Your task to perform on an android device: Open calendar and show me the fourth week of next month Image 0: 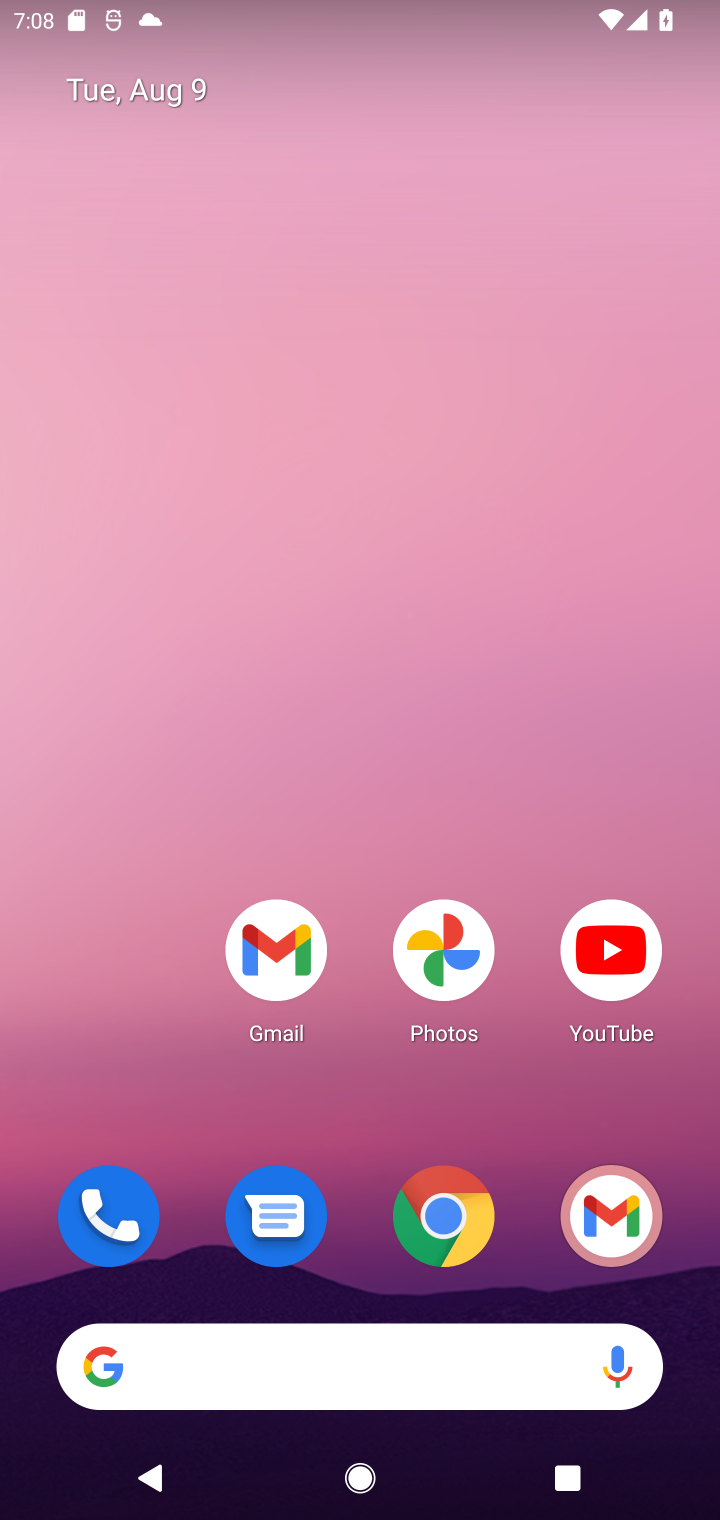
Step 0: drag from (378, 1106) to (276, 112)
Your task to perform on an android device: Open calendar and show me the fourth week of next month Image 1: 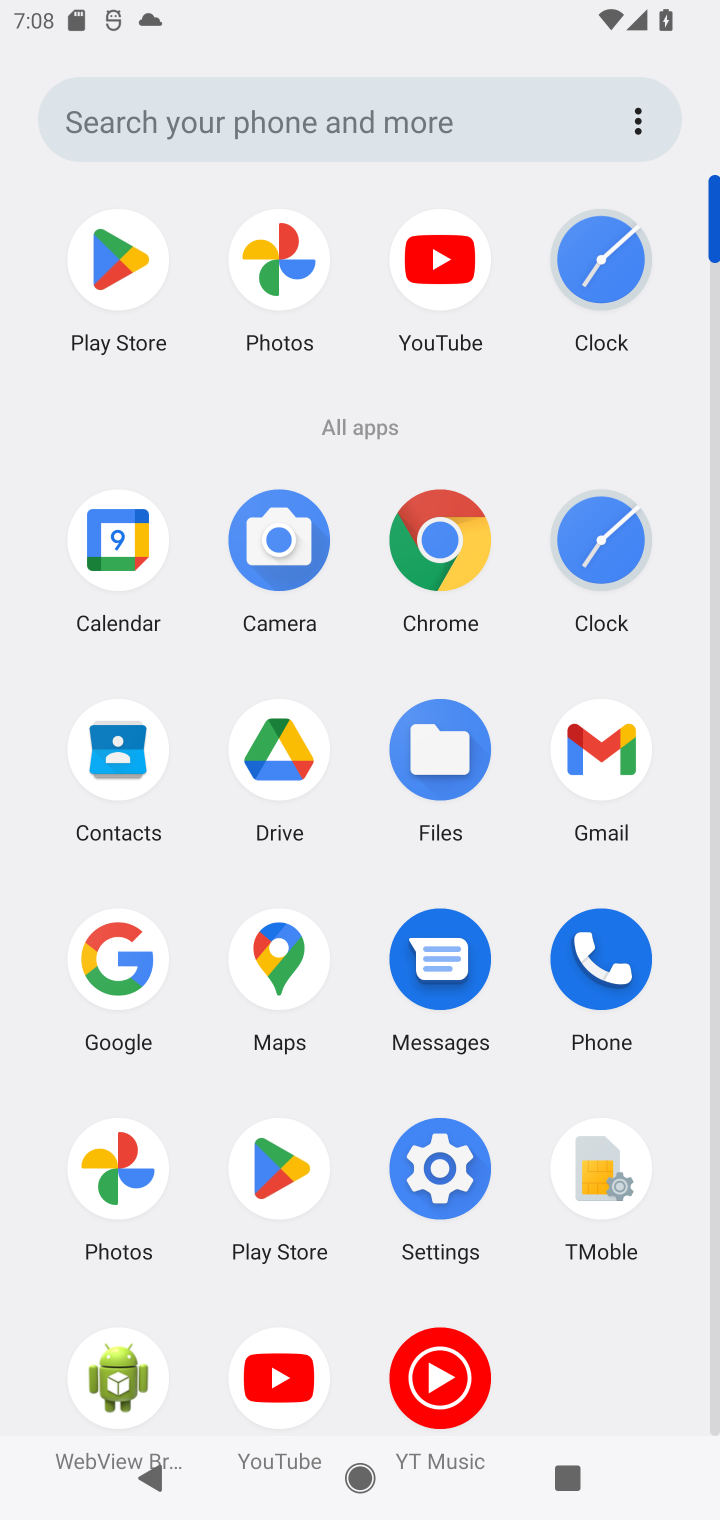
Step 1: click (111, 555)
Your task to perform on an android device: Open calendar and show me the fourth week of next month Image 2: 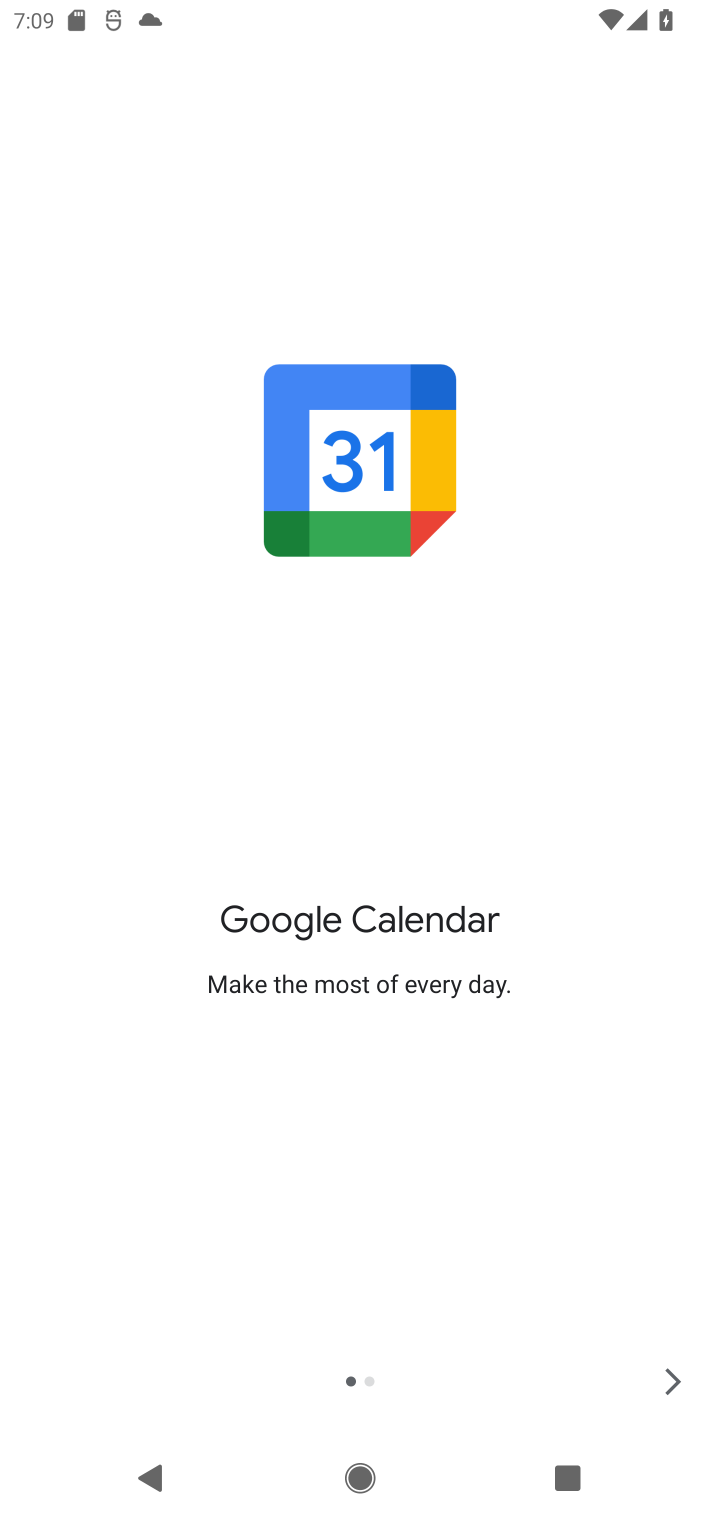
Step 2: click (650, 1382)
Your task to perform on an android device: Open calendar and show me the fourth week of next month Image 3: 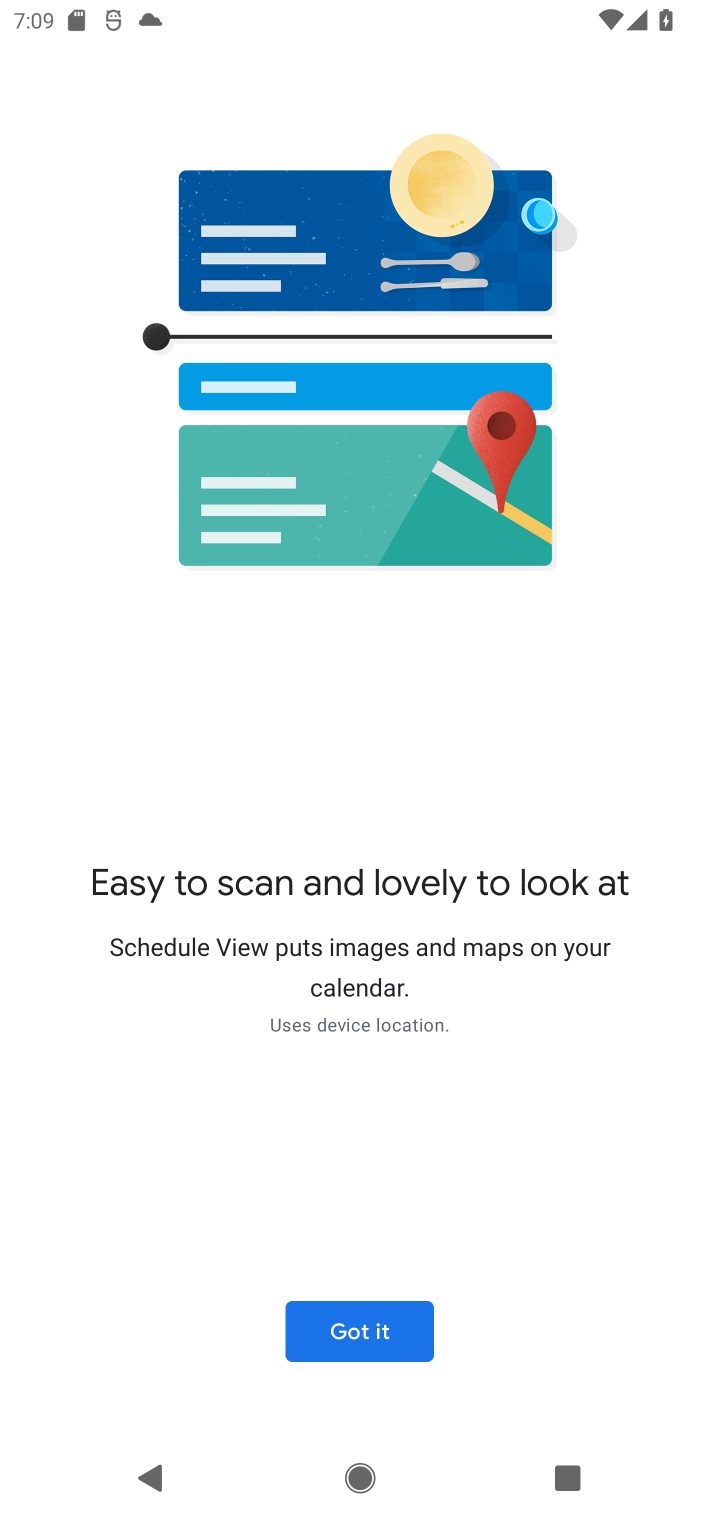
Step 3: click (390, 1324)
Your task to perform on an android device: Open calendar and show me the fourth week of next month Image 4: 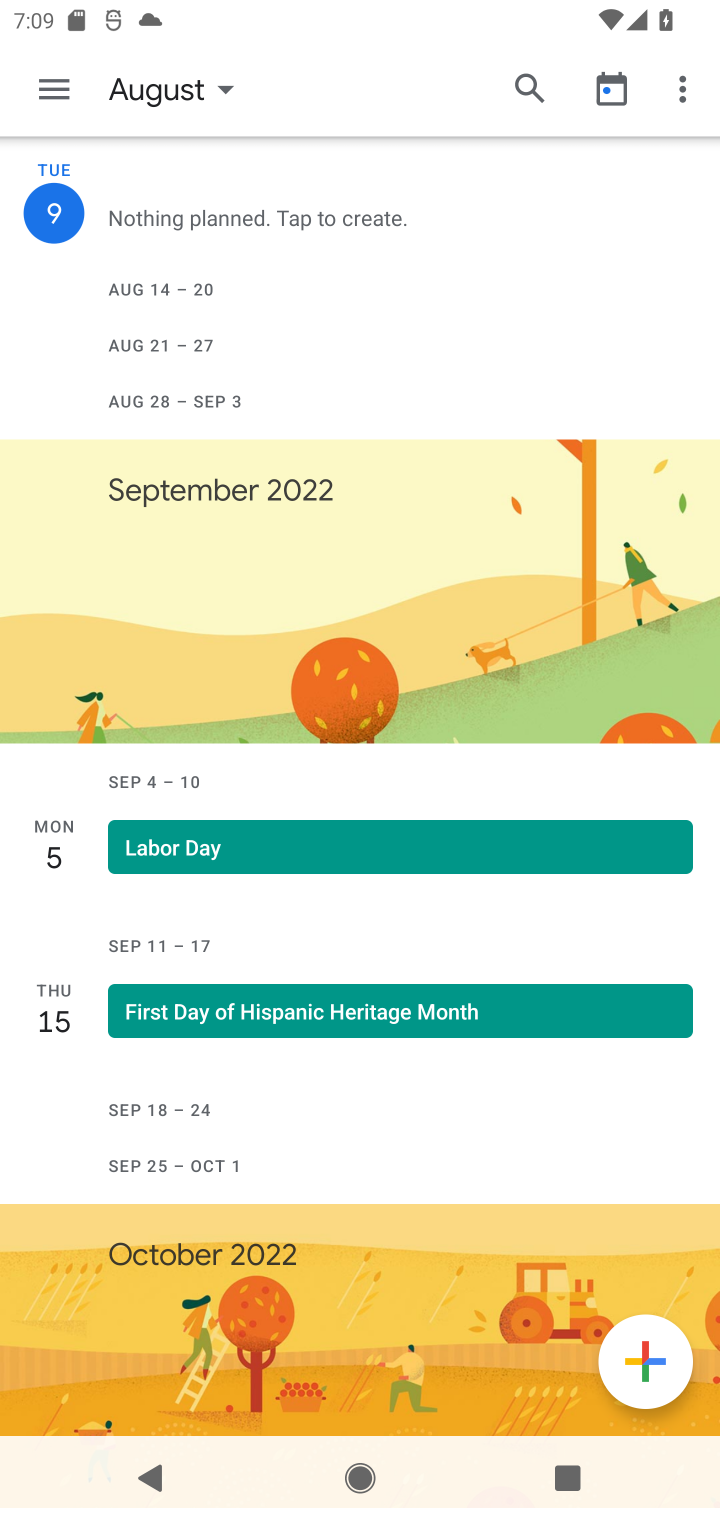
Step 4: click (39, 101)
Your task to perform on an android device: Open calendar and show me the fourth week of next month Image 5: 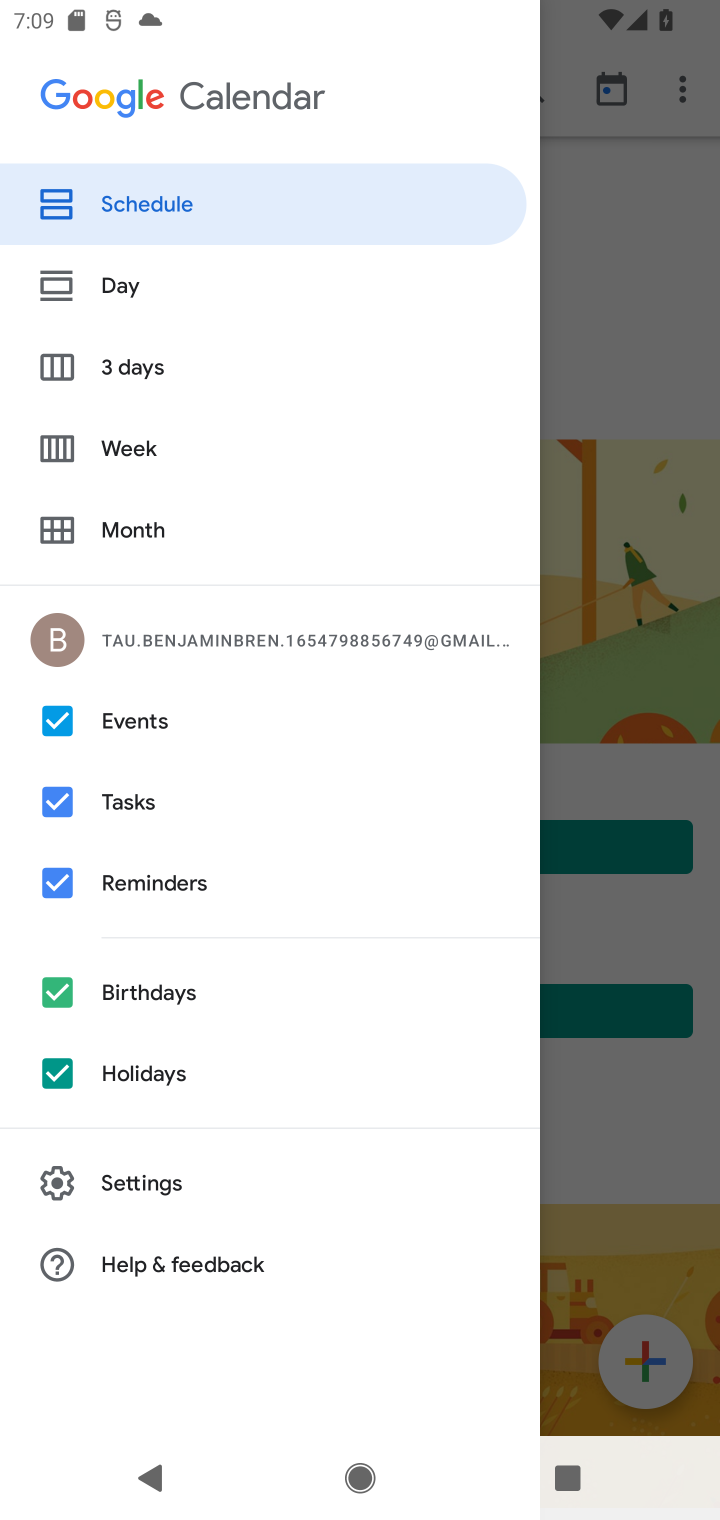
Step 5: click (125, 456)
Your task to perform on an android device: Open calendar and show me the fourth week of next month Image 6: 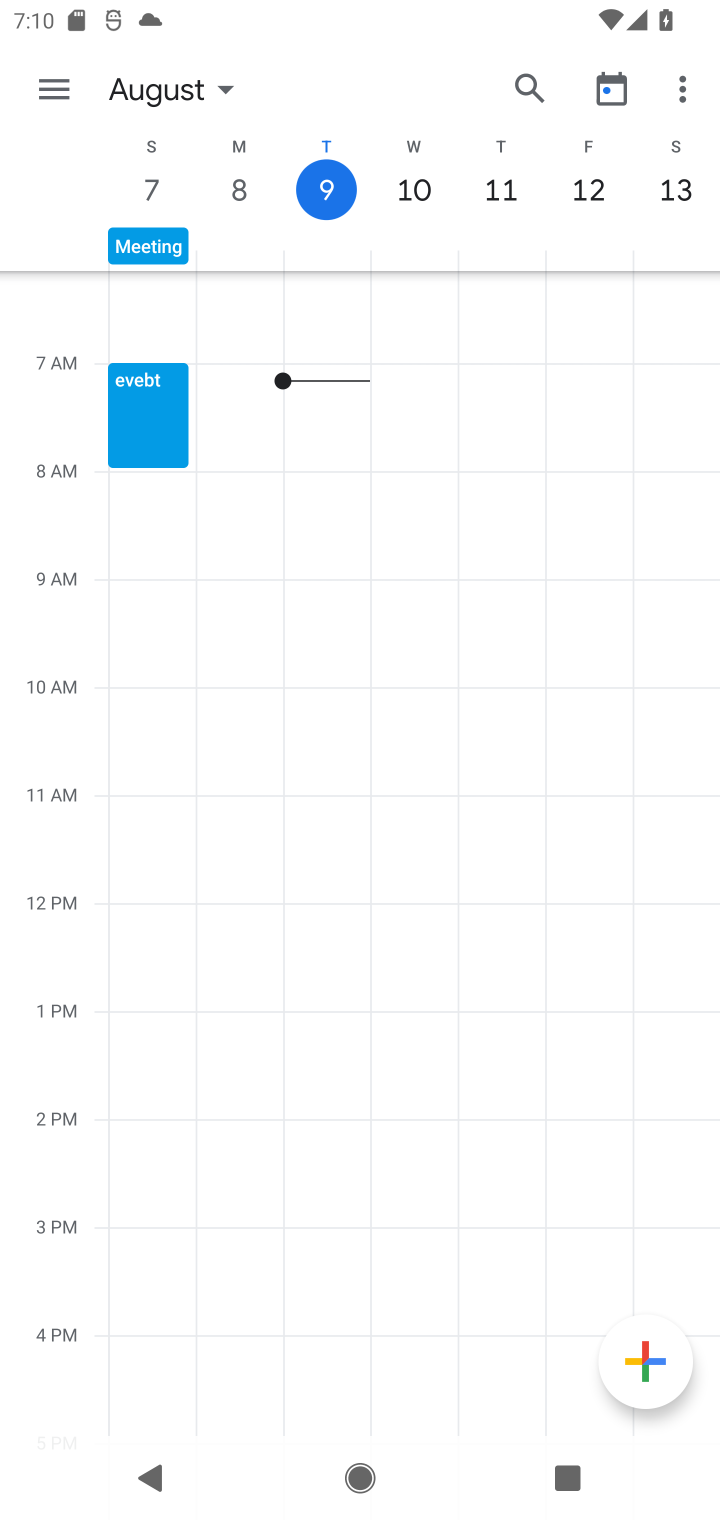
Step 6: click (219, 71)
Your task to perform on an android device: Open calendar and show me the fourth week of next month Image 7: 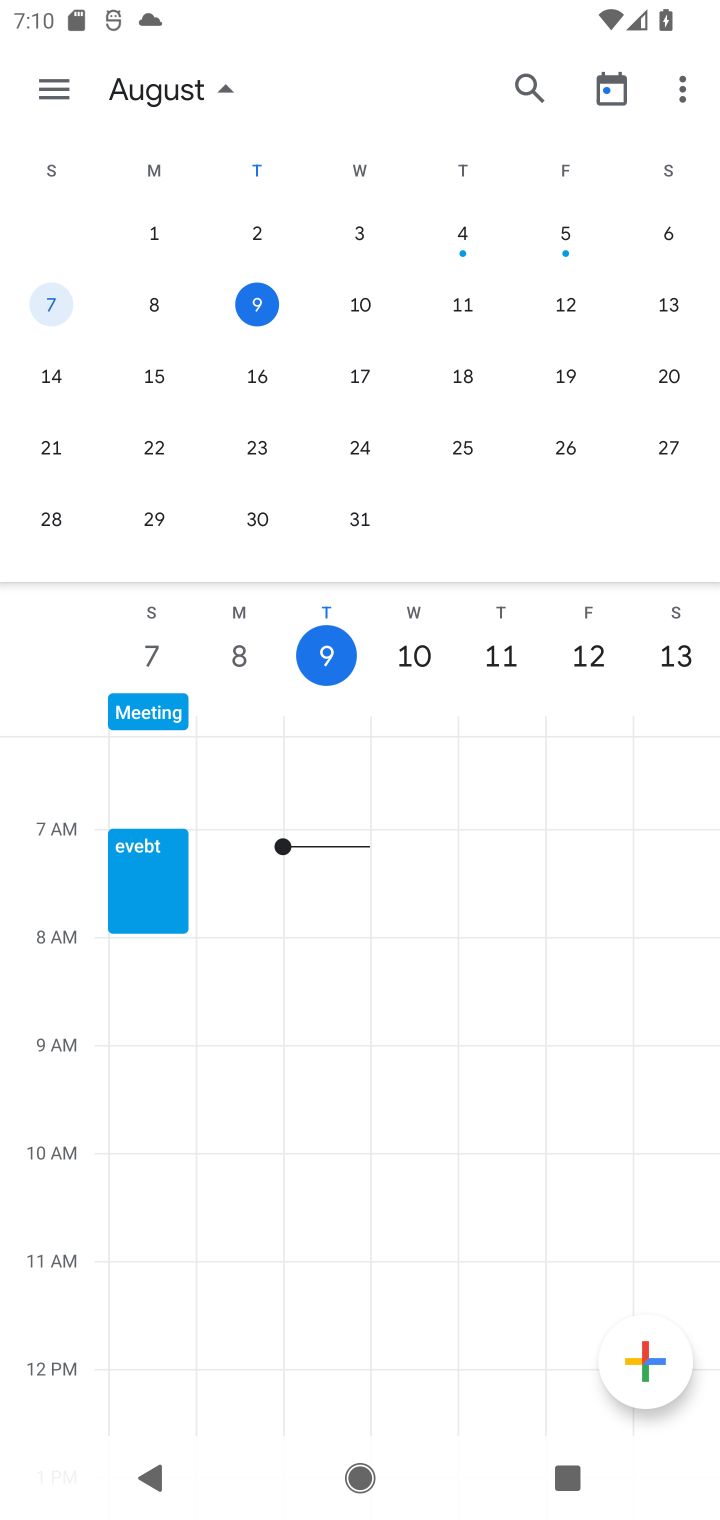
Step 7: drag from (612, 337) to (24, 280)
Your task to perform on an android device: Open calendar and show me the fourth week of next month Image 8: 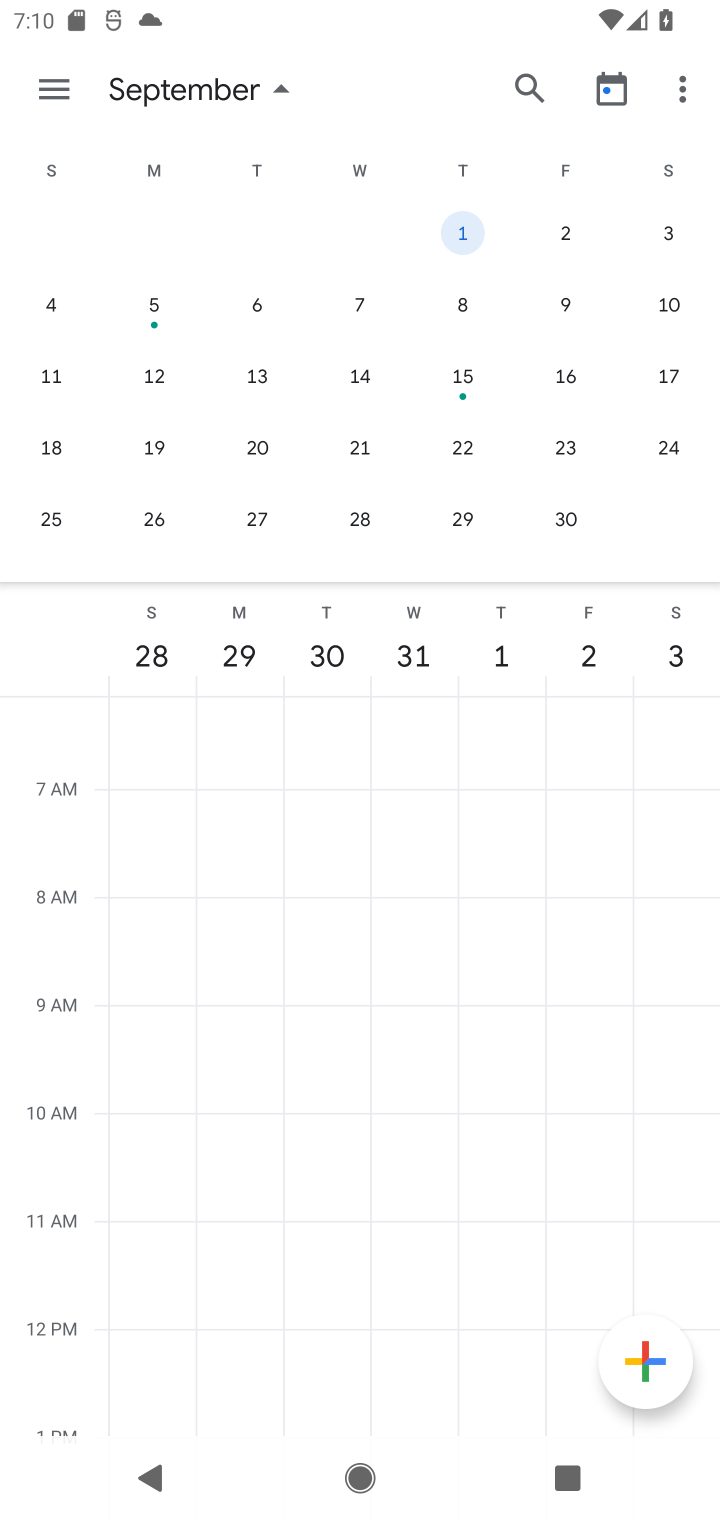
Step 8: click (354, 442)
Your task to perform on an android device: Open calendar and show me the fourth week of next month Image 9: 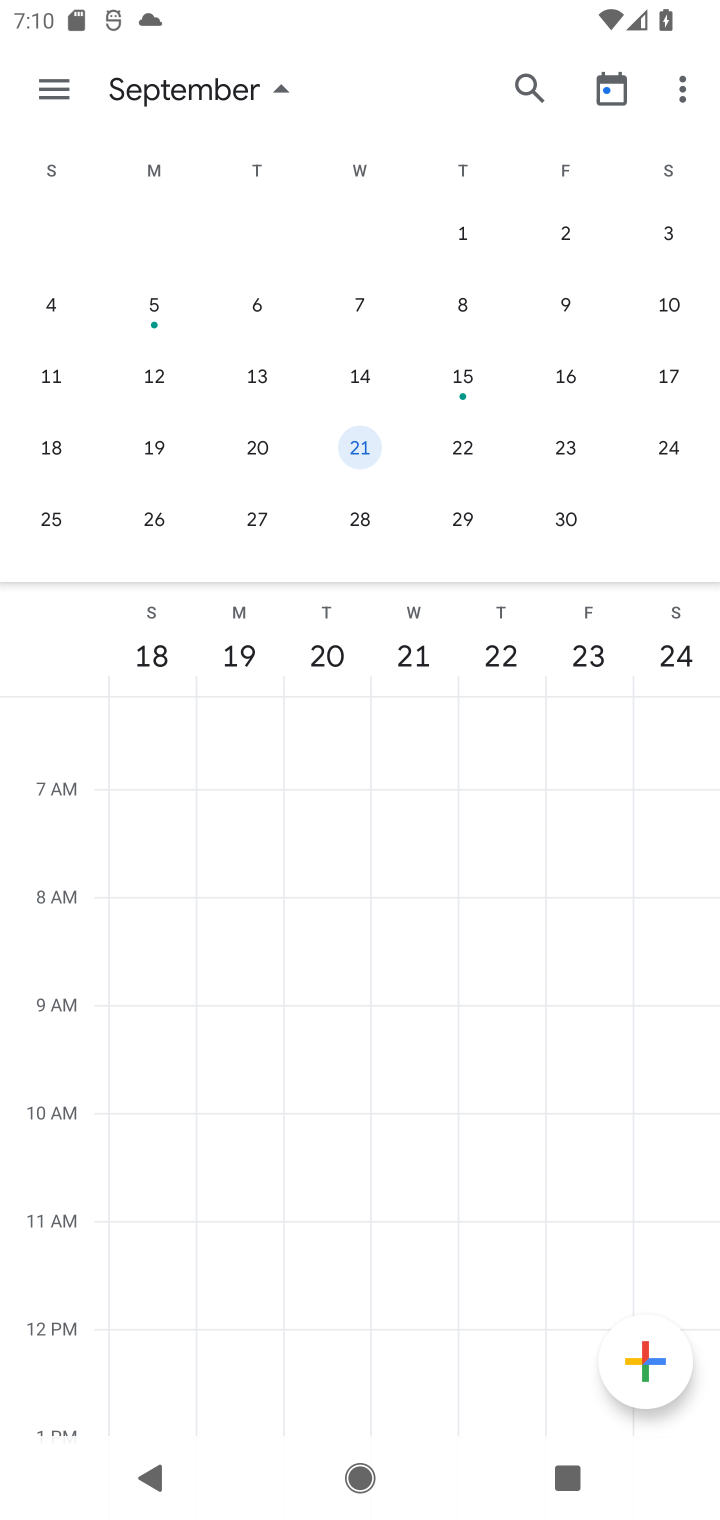
Step 9: task complete